Your task to perform on an android device: Empty the shopping cart on target.com. Search for razer blade on target.com, select the first entry, and add it to the cart. Image 0: 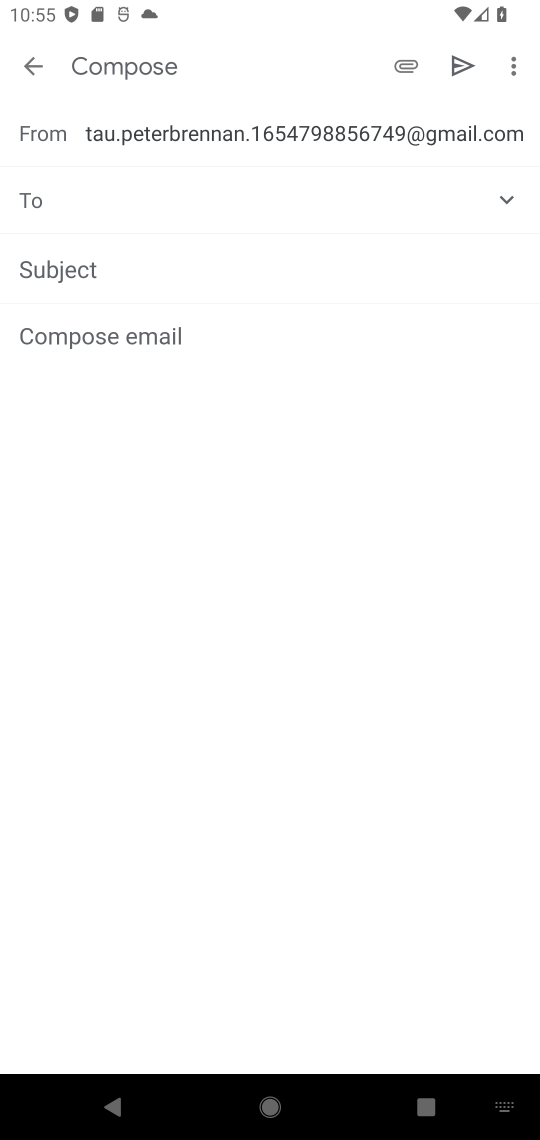
Step 0: press home button
Your task to perform on an android device: Empty the shopping cart on target.com. Search for razer blade on target.com, select the first entry, and add it to the cart. Image 1: 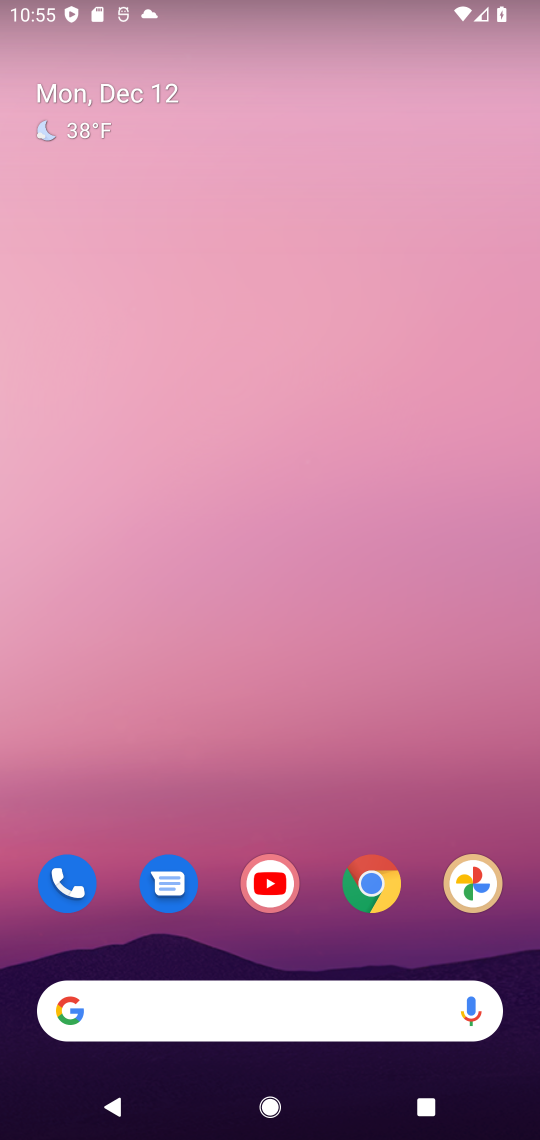
Step 1: click (287, 1001)
Your task to perform on an android device: Empty the shopping cart on target.com. Search for razer blade on target.com, select the first entry, and add it to the cart. Image 2: 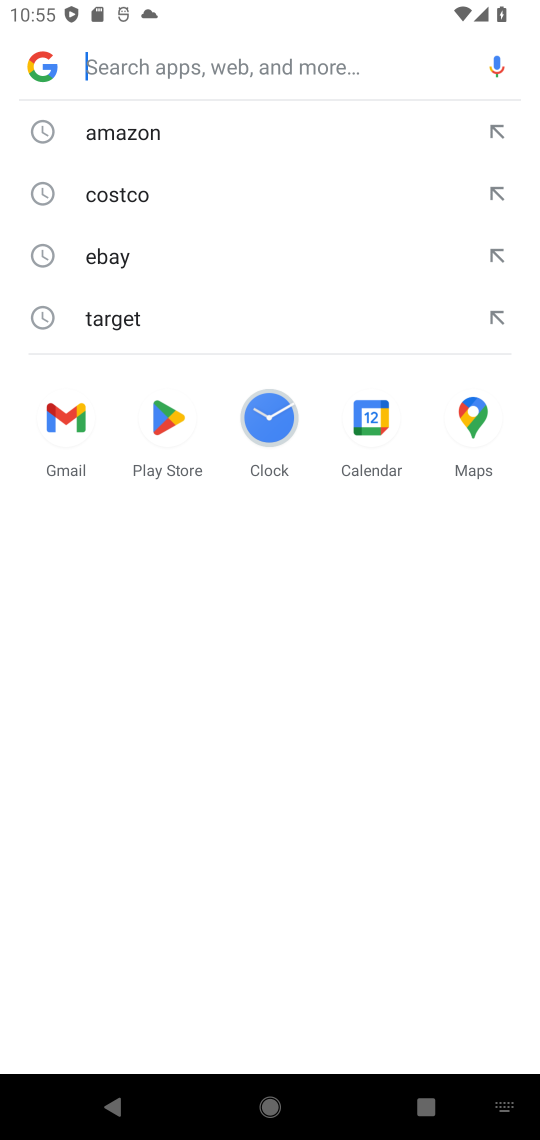
Step 2: click (170, 323)
Your task to perform on an android device: Empty the shopping cart on target.com. Search for razer blade on target.com, select the first entry, and add it to the cart. Image 3: 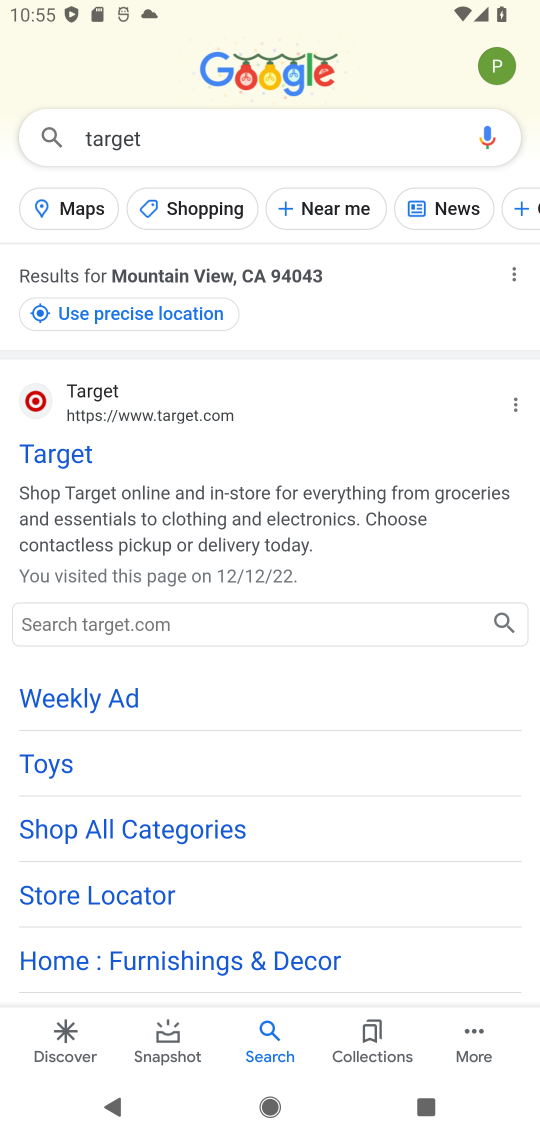
Step 3: click (64, 454)
Your task to perform on an android device: Empty the shopping cart on target.com. Search for razer blade on target.com, select the first entry, and add it to the cart. Image 4: 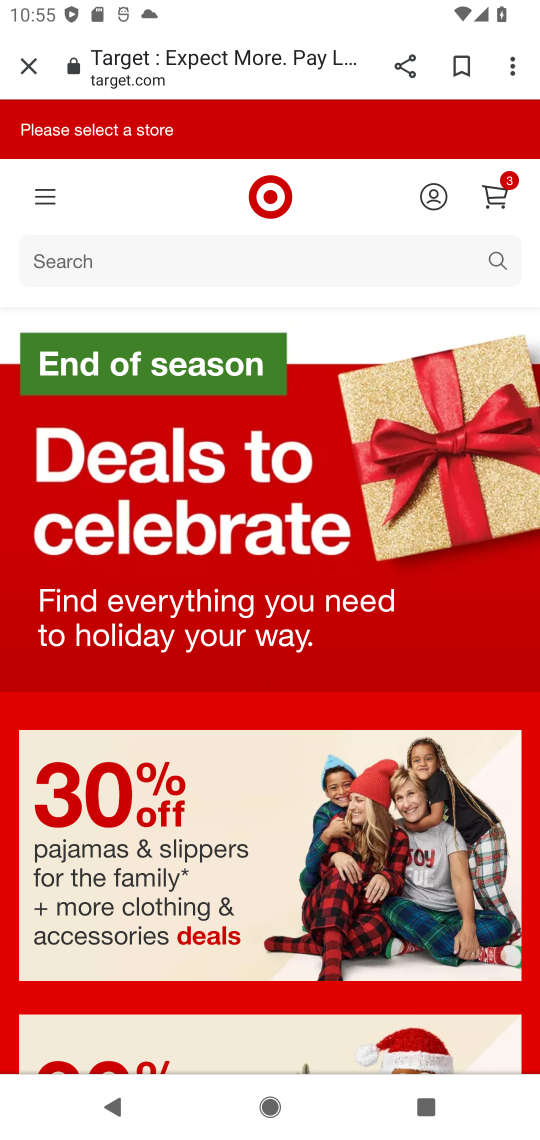
Step 4: click (494, 174)
Your task to perform on an android device: Empty the shopping cart on target.com. Search for razer blade on target.com, select the first entry, and add it to the cart. Image 5: 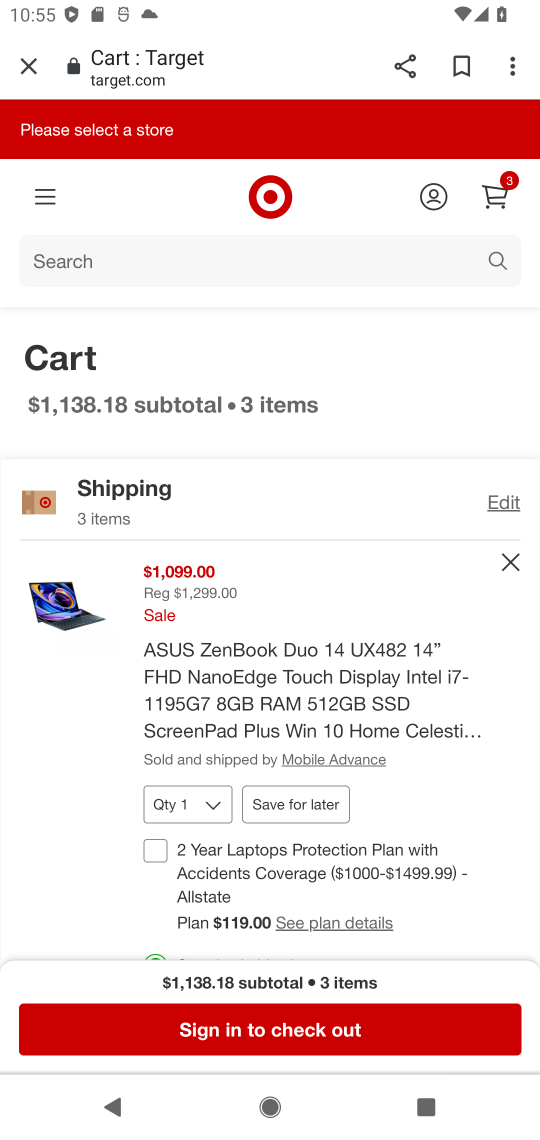
Step 5: click (500, 559)
Your task to perform on an android device: Empty the shopping cart on target.com. Search for razer blade on target.com, select the first entry, and add it to the cart. Image 6: 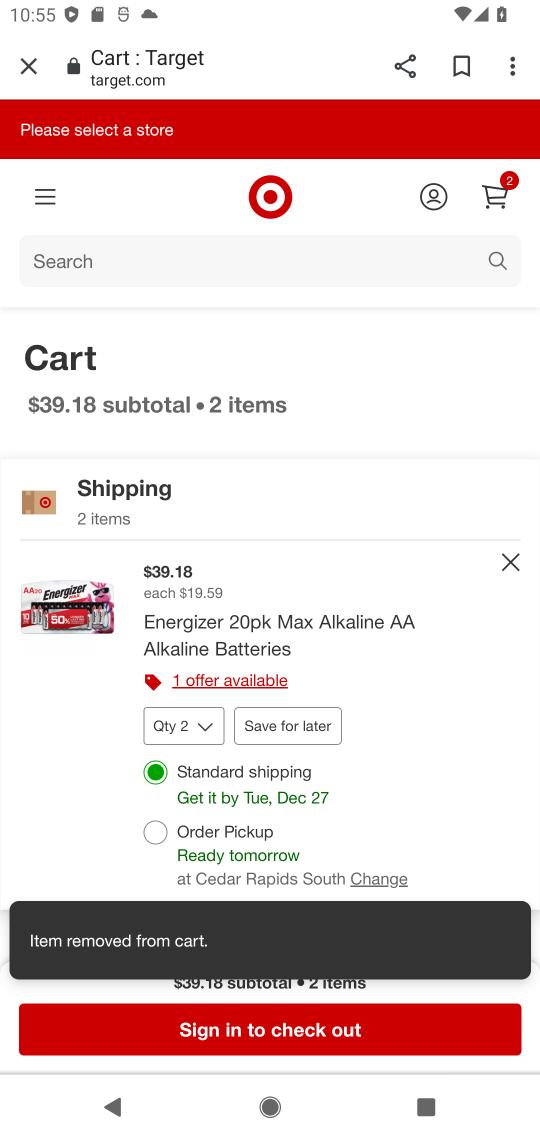
Step 6: click (500, 559)
Your task to perform on an android device: Empty the shopping cart on target.com. Search for razer blade on target.com, select the first entry, and add it to the cart. Image 7: 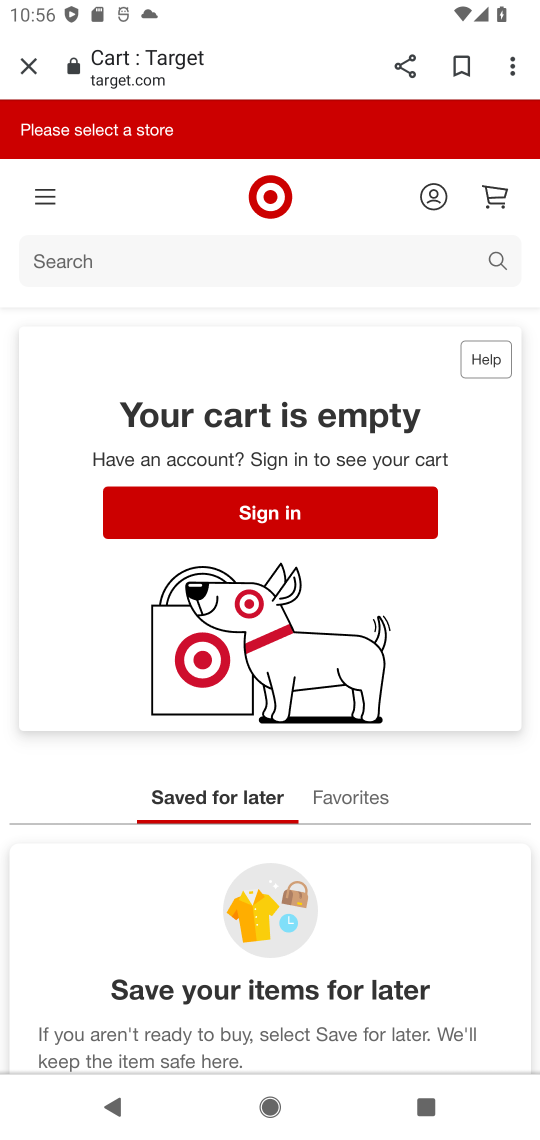
Step 7: click (345, 261)
Your task to perform on an android device: Empty the shopping cart on target.com. Search for razer blade on target.com, select the first entry, and add it to the cart. Image 8: 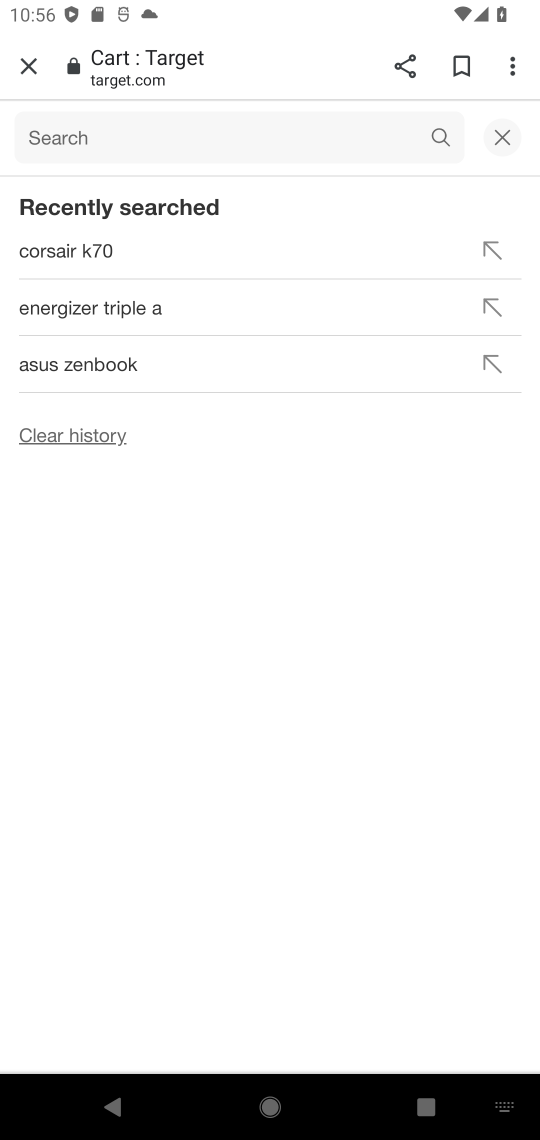
Step 8: type " razer blade "
Your task to perform on an android device: Empty the shopping cart on target.com. Search for razer blade on target.com, select the first entry, and add it to the cart. Image 9: 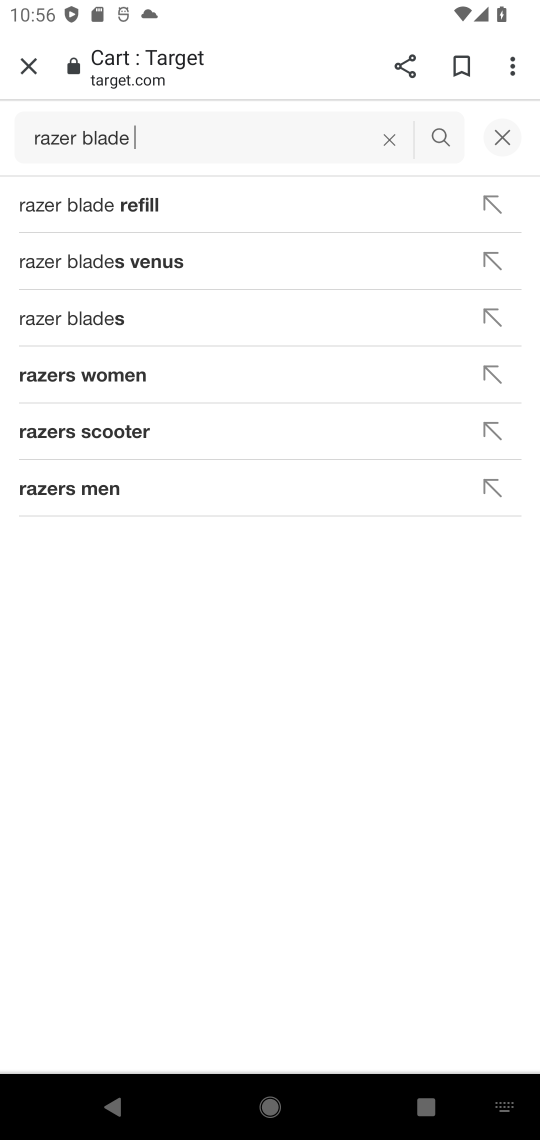
Step 9: click (441, 131)
Your task to perform on an android device: Empty the shopping cart on target.com. Search for razer blade on target.com, select the first entry, and add it to the cart. Image 10: 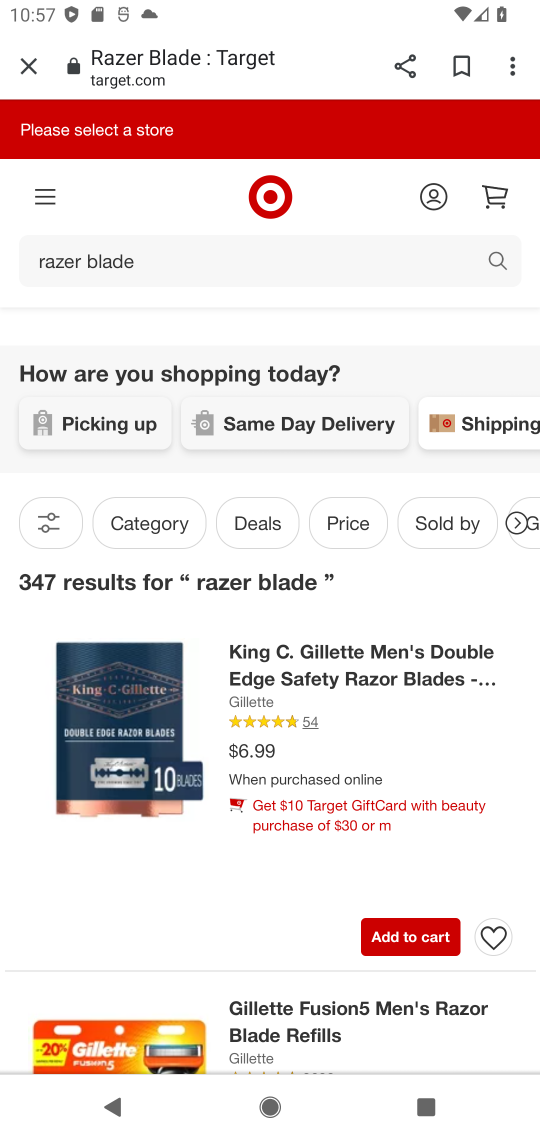
Step 10: drag from (287, 872) to (330, 758)
Your task to perform on an android device: Empty the shopping cart on target.com. Search for razer blade on target.com, select the first entry, and add it to the cart. Image 11: 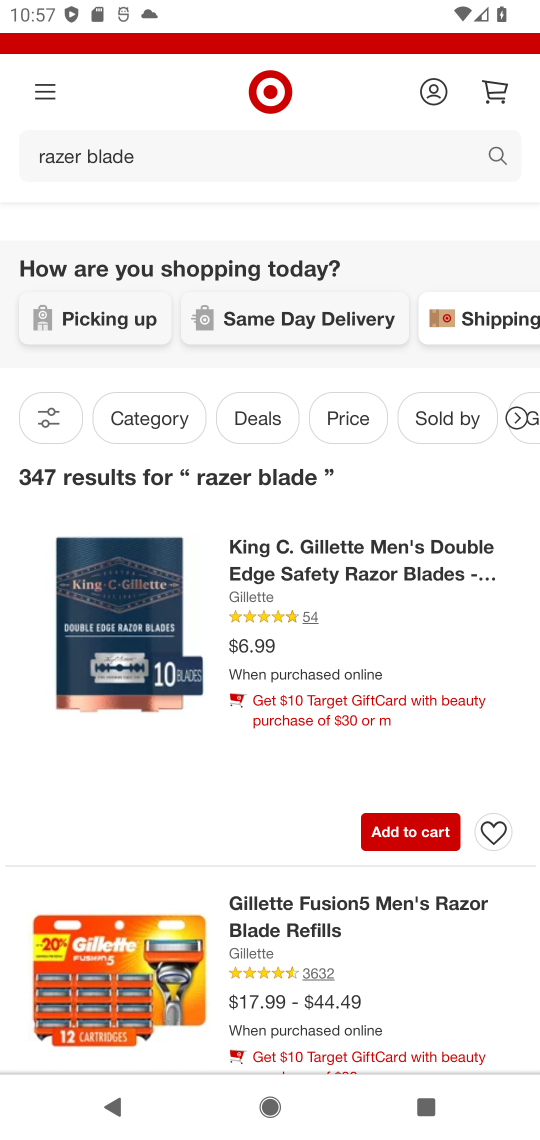
Step 11: click (405, 824)
Your task to perform on an android device: Empty the shopping cart on target.com. Search for razer blade on target.com, select the first entry, and add it to the cart. Image 12: 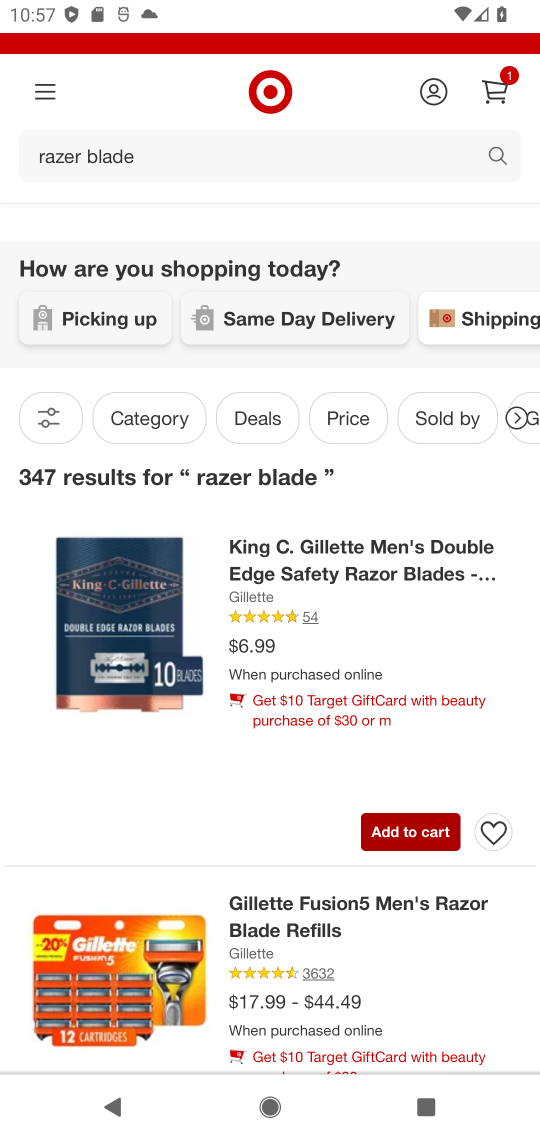
Step 12: task complete